Your task to perform on an android device: open a bookmark in the chrome app Image 0: 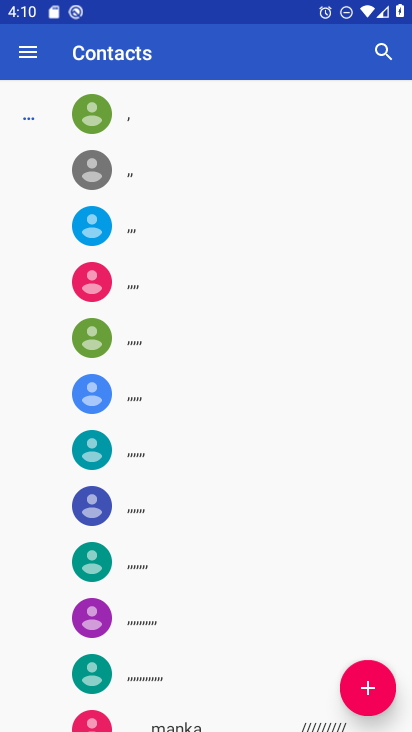
Step 0: press home button
Your task to perform on an android device: open a bookmark in the chrome app Image 1: 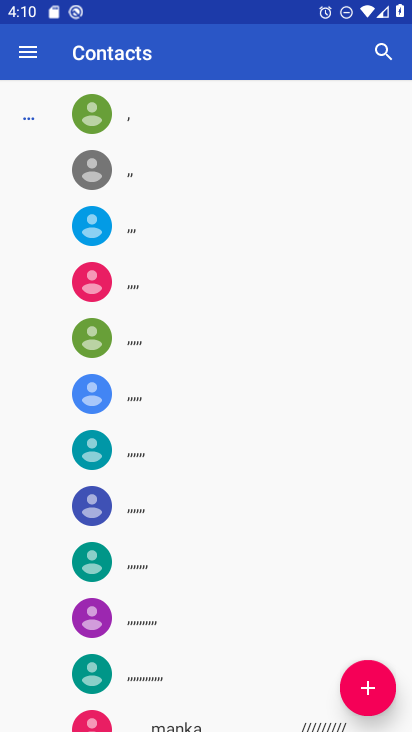
Step 1: press home button
Your task to perform on an android device: open a bookmark in the chrome app Image 2: 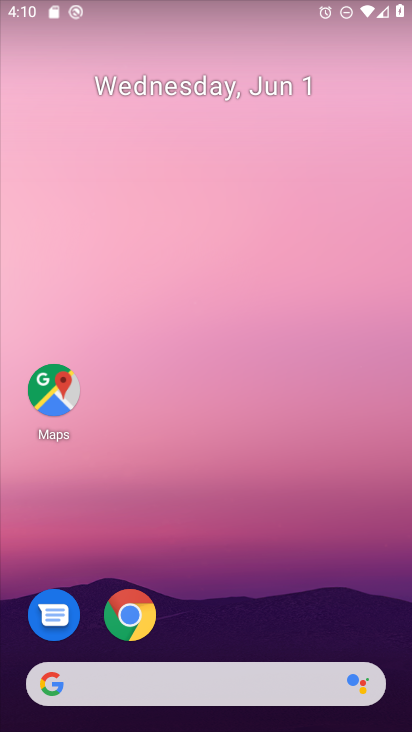
Step 2: click (132, 611)
Your task to perform on an android device: open a bookmark in the chrome app Image 3: 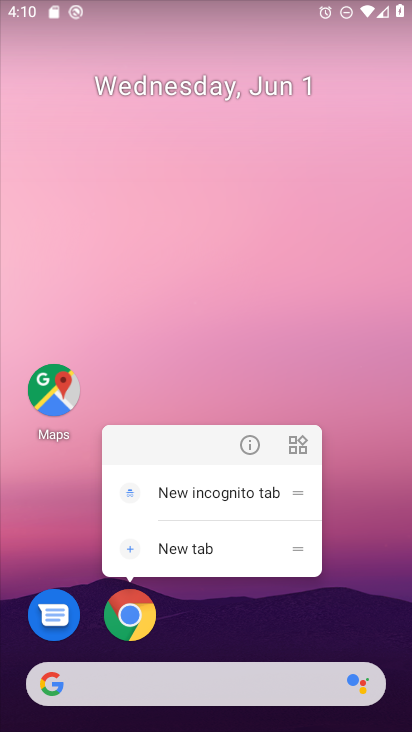
Step 3: click (130, 605)
Your task to perform on an android device: open a bookmark in the chrome app Image 4: 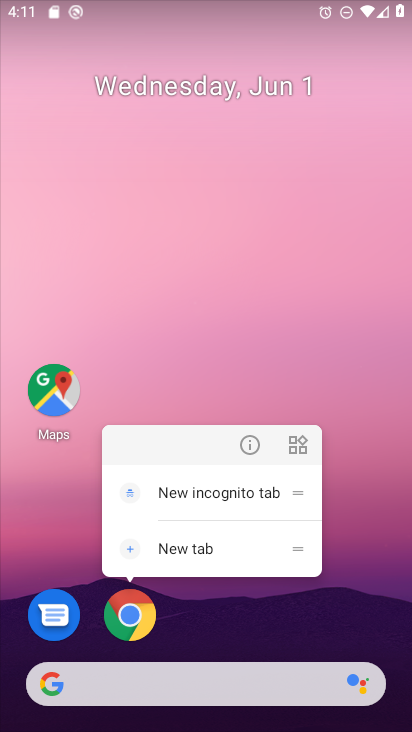
Step 4: click (238, 636)
Your task to perform on an android device: open a bookmark in the chrome app Image 5: 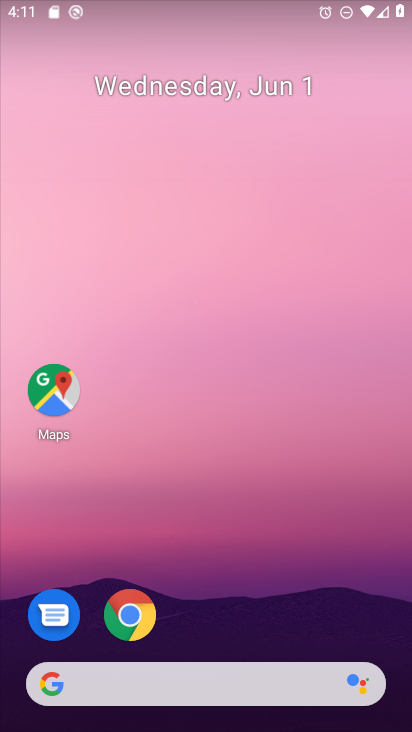
Step 5: drag from (251, 643) to (244, 83)
Your task to perform on an android device: open a bookmark in the chrome app Image 6: 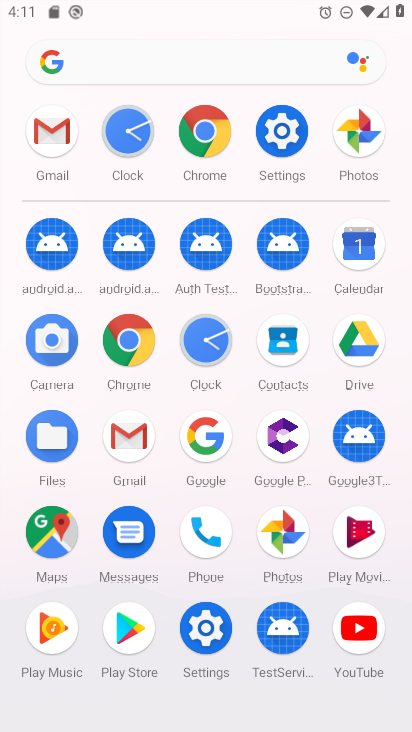
Step 6: click (201, 132)
Your task to perform on an android device: open a bookmark in the chrome app Image 7: 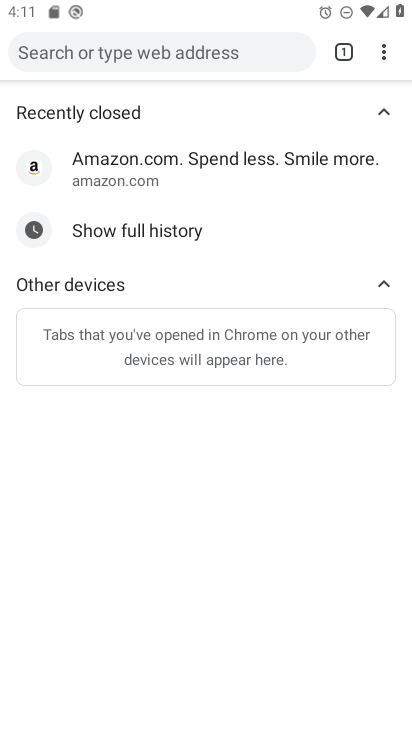
Step 7: click (381, 54)
Your task to perform on an android device: open a bookmark in the chrome app Image 8: 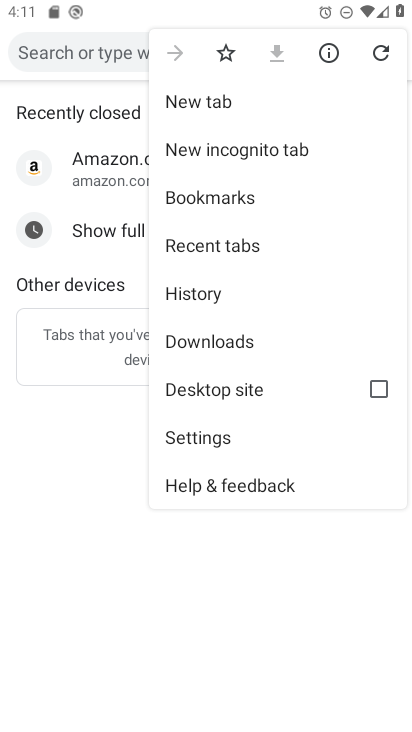
Step 8: click (232, 195)
Your task to perform on an android device: open a bookmark in the chrome app Image 9: 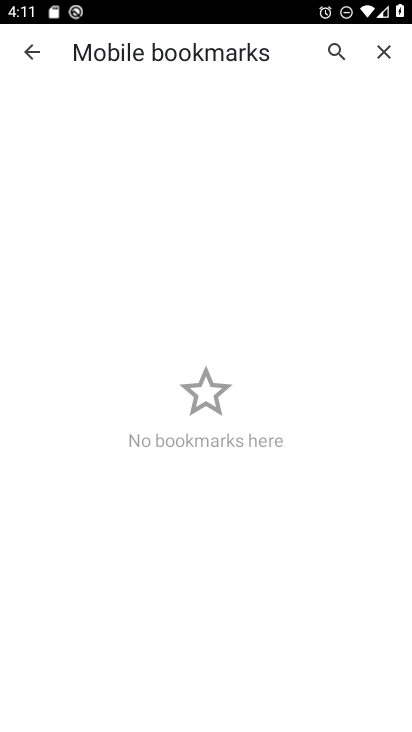
Step 9: task complete